Your task to perform on an android device: turn off javascript in the chrome app Image 0: 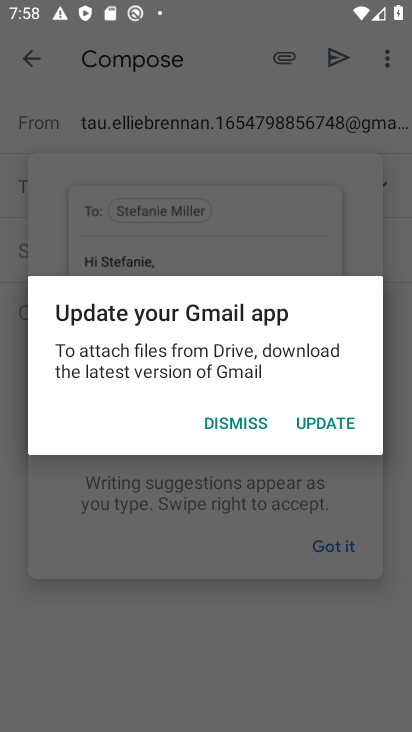
Step 0: press home button
Your task to perform on an android device: turn off javascript in the chrome app Image 1: 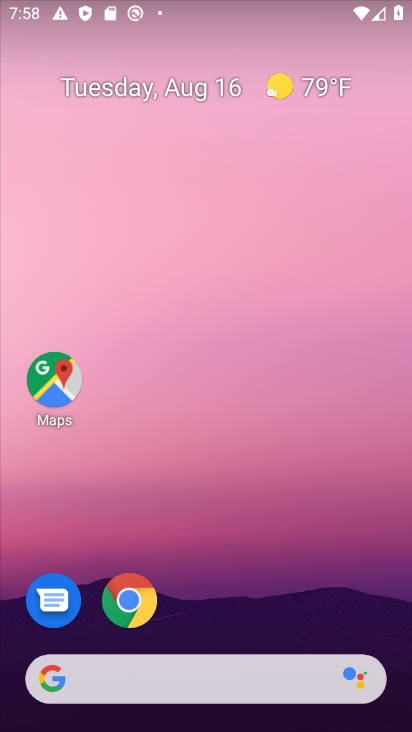
Step 1: drag from (276, 708) to (412, 217)
Your task to perform on an android device: turn off javascript in the chrome app Image 2: 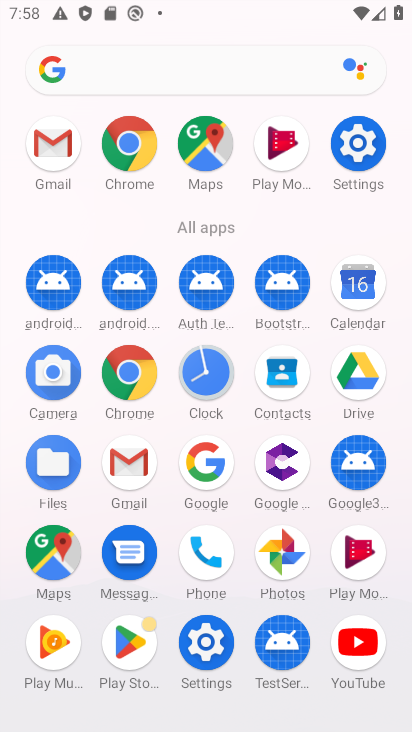
Step 2: click (131, 149)
Your task to perform on an android device: turn off javascript in the chrome app Image 3: 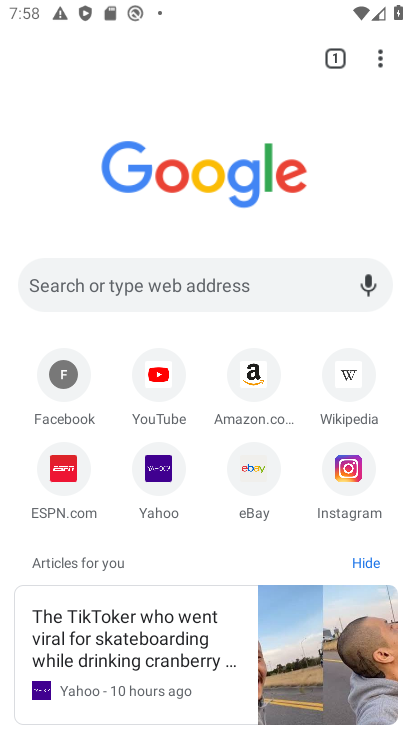
Step 3: drag from (380, 56) to (174, 511)
Your task to perform on an android device: turn off javascript in the chrome app Image 4: 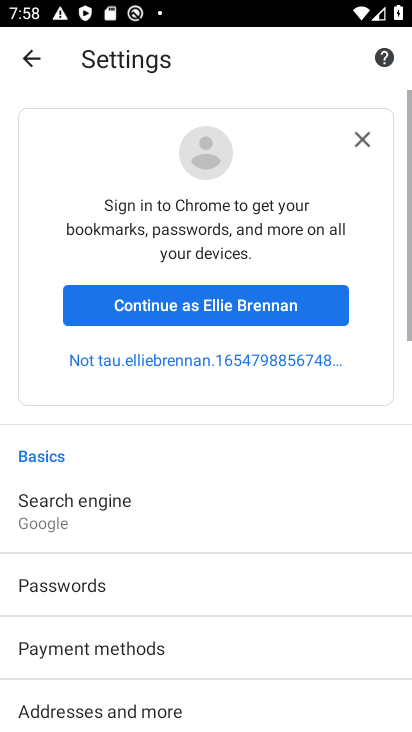
Step 4: drag from (149, 600) to (287, 117)
Your task to perform on an android device: turn off javascript in the chrome app Image 5: 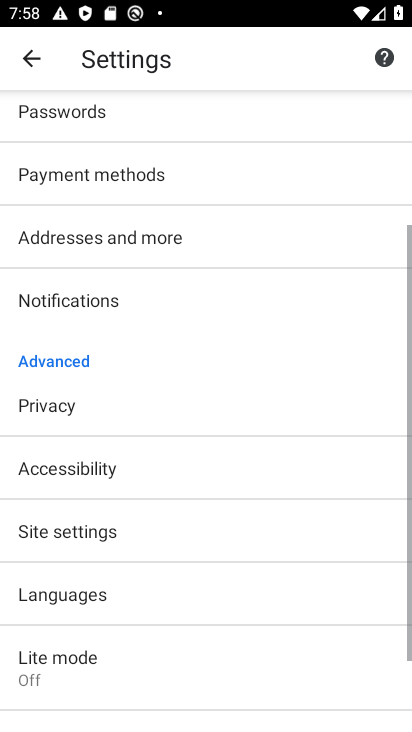
Step 5: click (111, 539)
Your task to perform on an android device: turn off javascript in the chrome app Image 6: 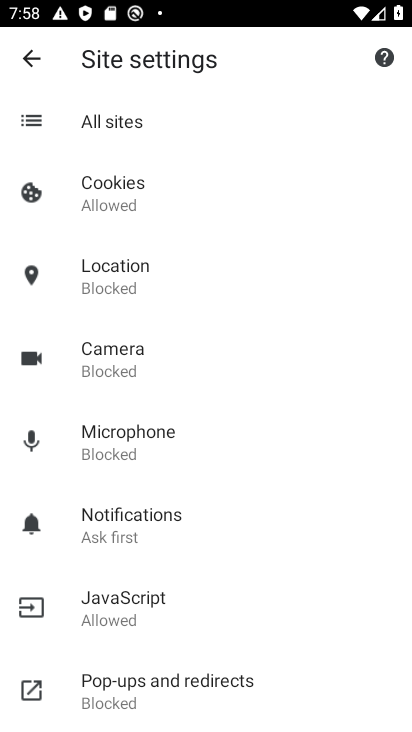
Step 6: click (97, 608)
Your task to perform on an android device: turn off javascript in the chrome app Image 7: 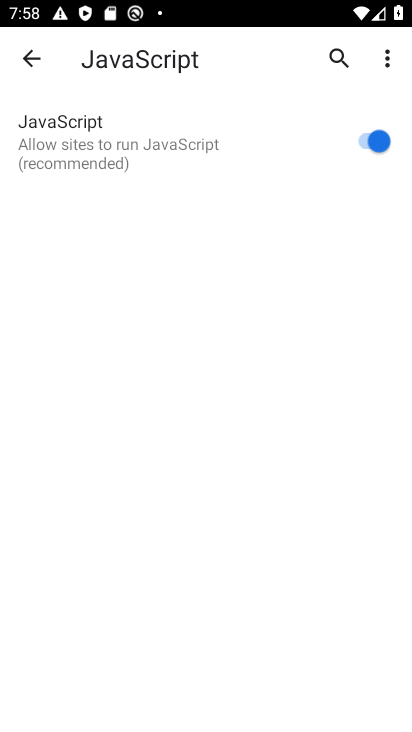
Step 7: click (361, 140)
Your task to perform on an android device: turn off javascript in the chrome app Image 8: 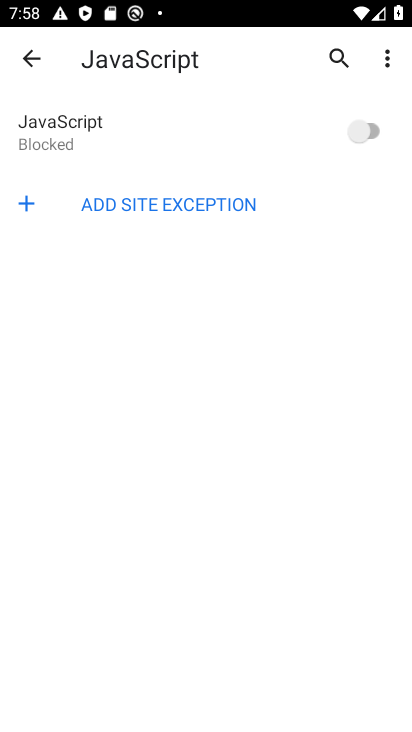
Step 8: task complete